Your task to perform on an android device: Clear the shopping cart on walmart. Add macbook to the cart on walmart Image 0: 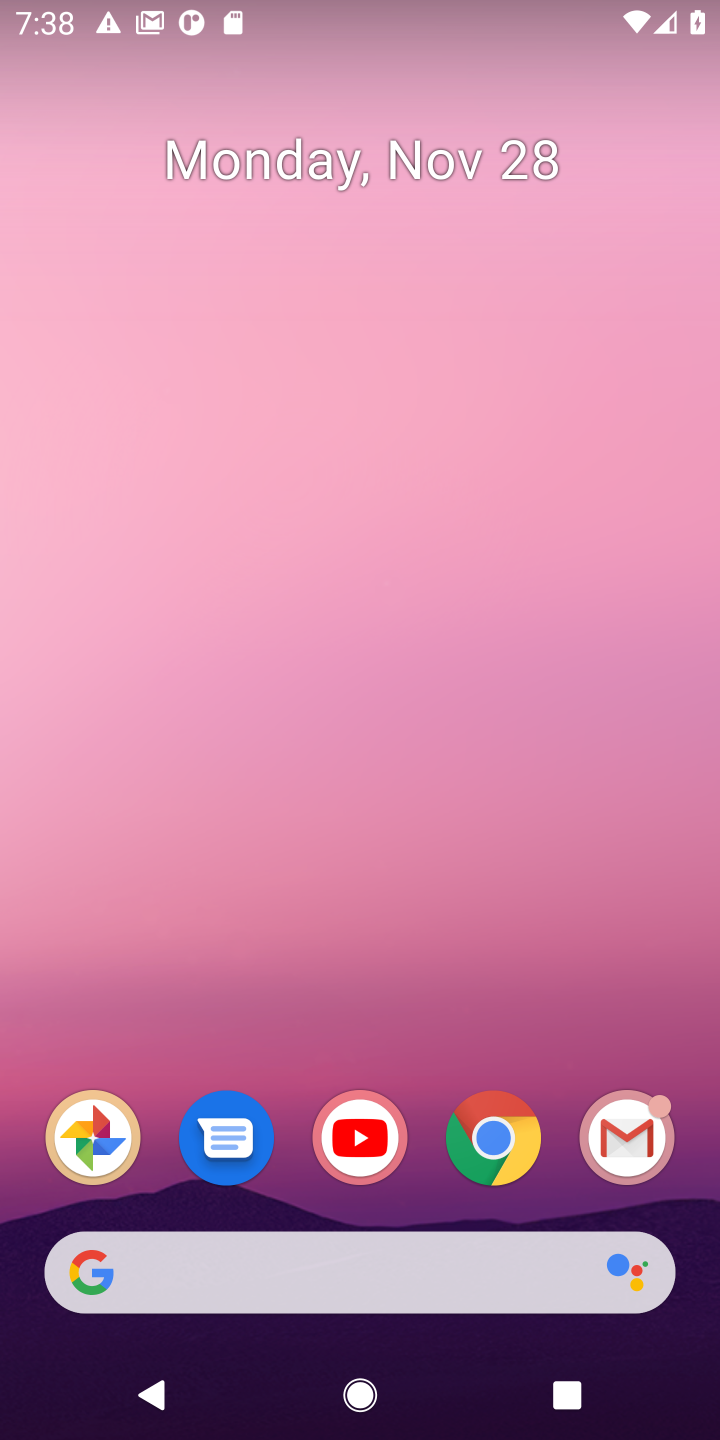
Step 0: click (484, 1155)
Your task to perform on an android device: Clear the shopping cart on walmart. Add macbook to the cart on walmart Image 1: 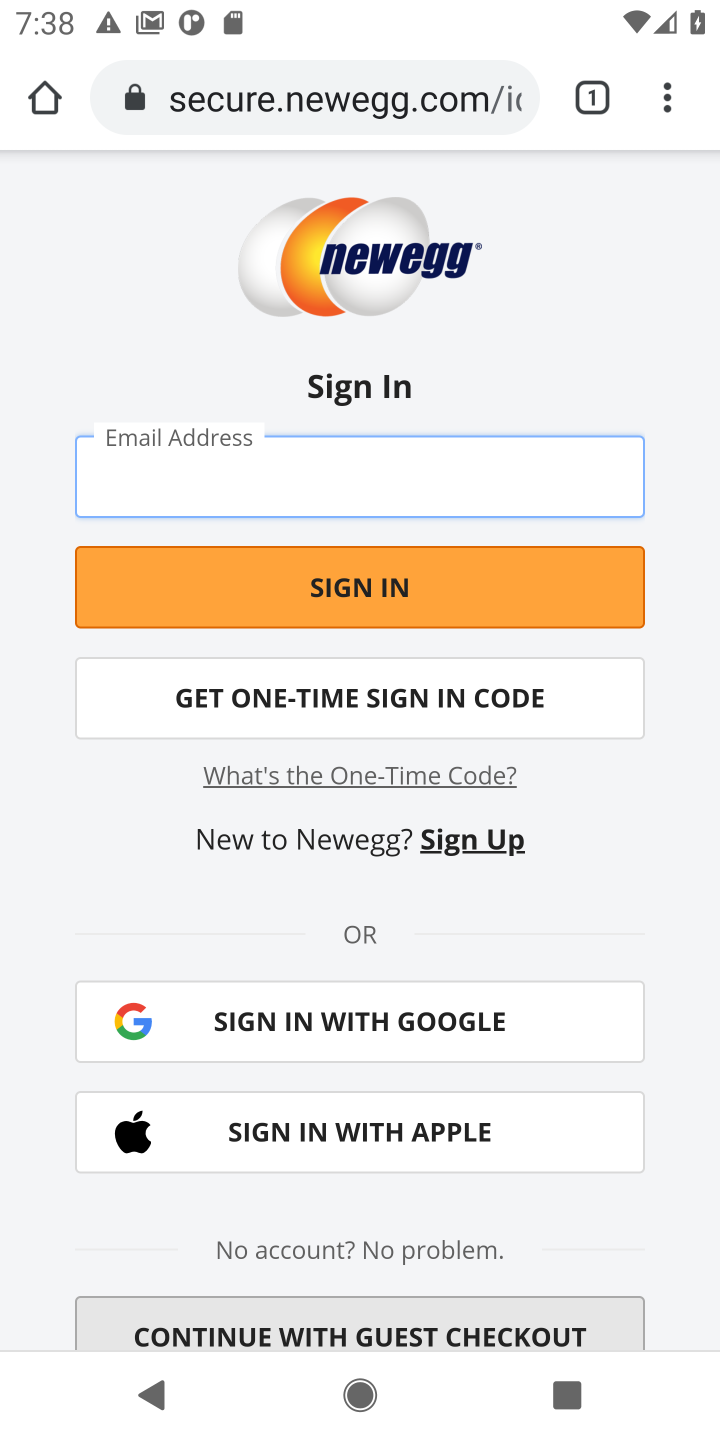
Step 1: click (270, 104)
Your task to perform on an android device: Clear the shopping cart on walmart. Add macbook to the cart on walmart Image 2: 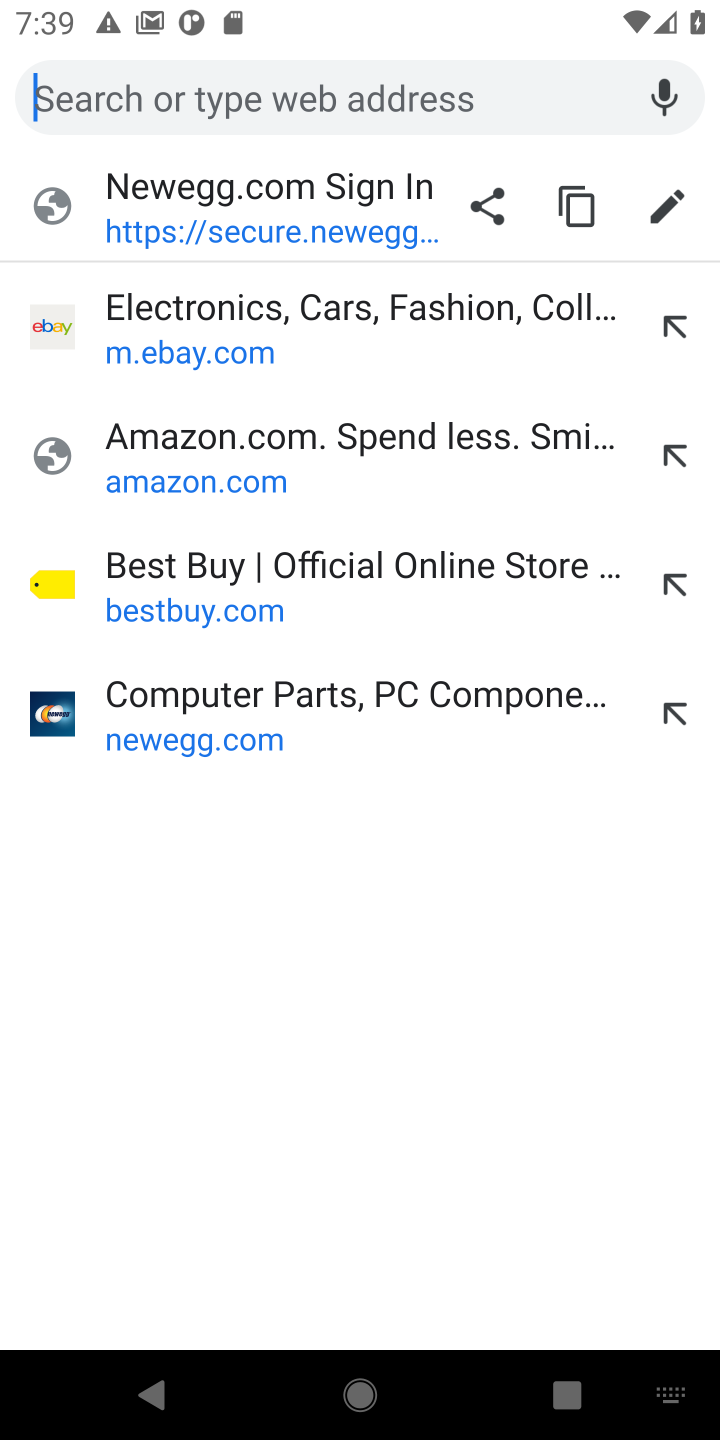
Step 2: type "walmart.com"
Your task to perform on an android device: Clear the shopping cart on walmart. Add macbook to the cart on walmart Image 3: 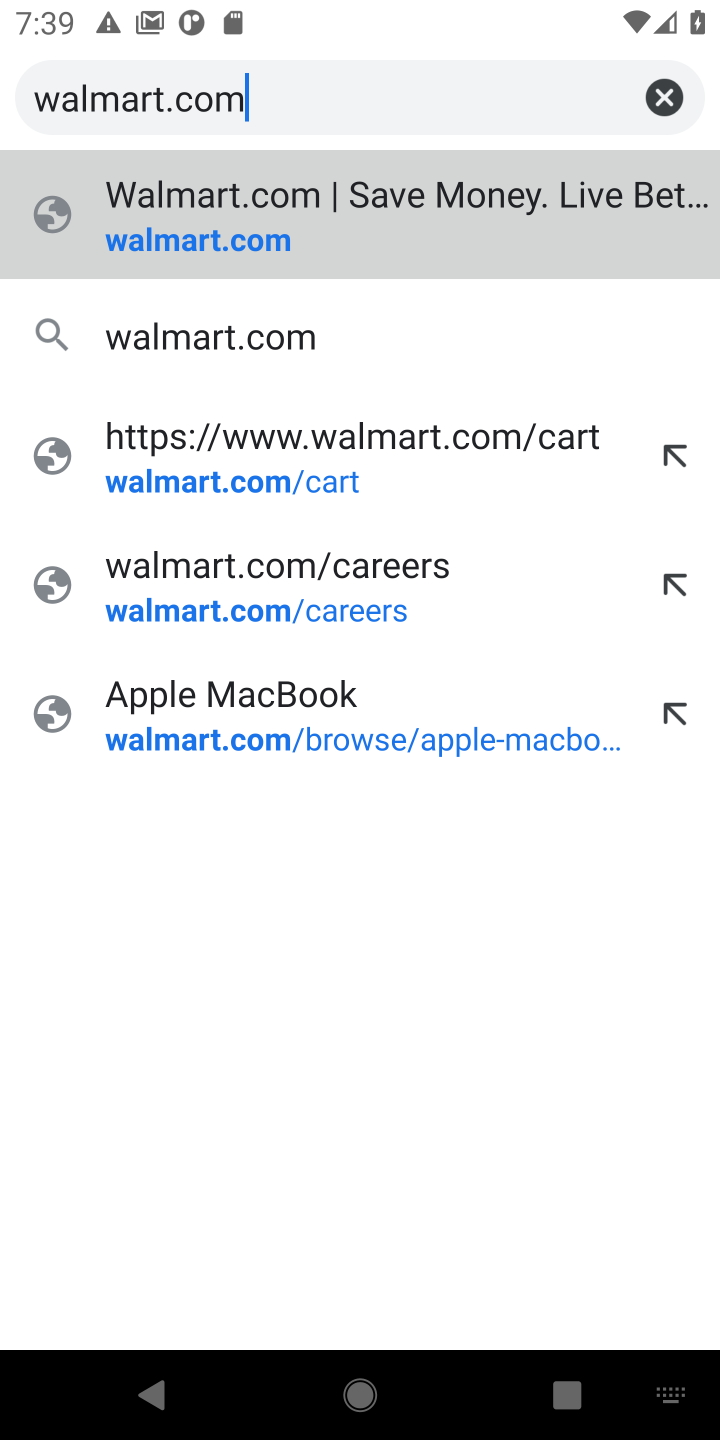
Step 3: click (161, 224)
Your task to perform on an android device: Clear the shopping cart on walmart. Add macbook to the cart on walmart Image 4: 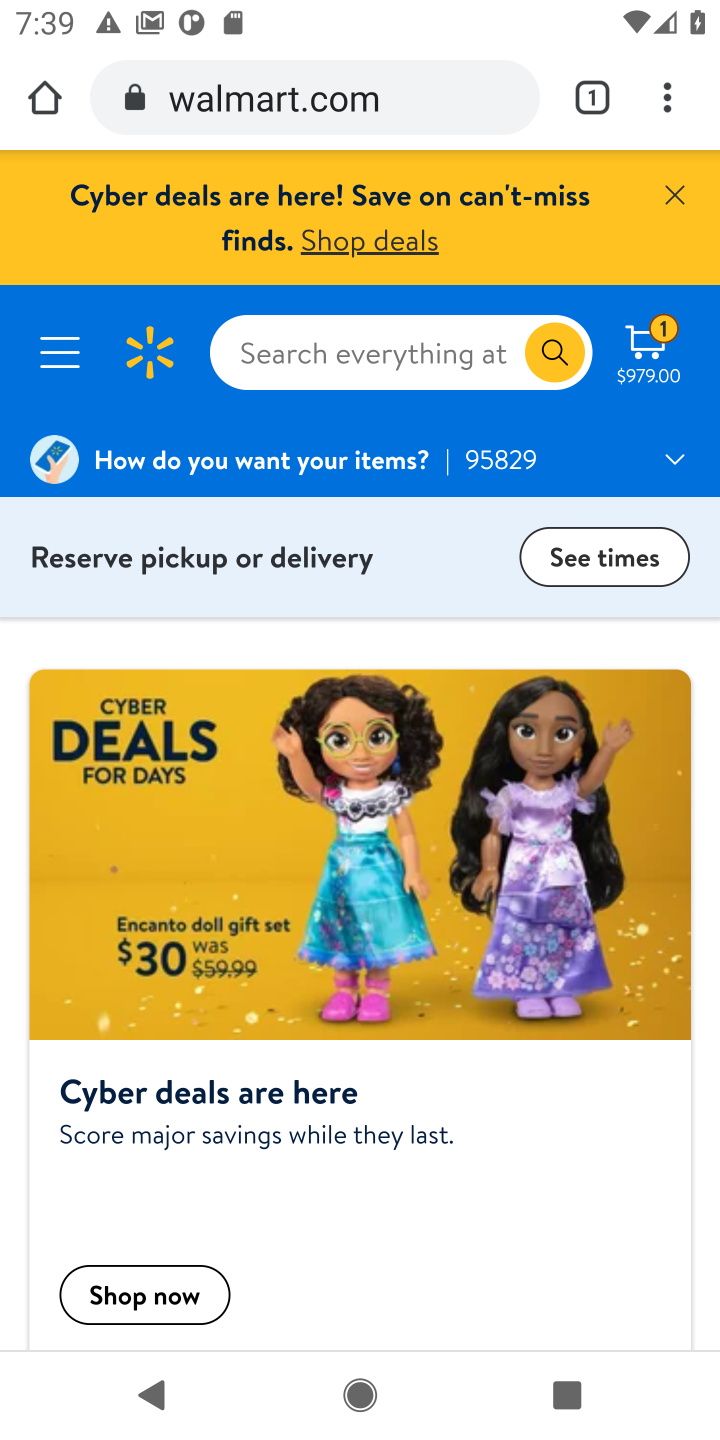
Step 4: click (668, 356)
Your task to perform on an android device: Clear the shopping cart on walmart. Add macbook to the cart on walmart Image 5: 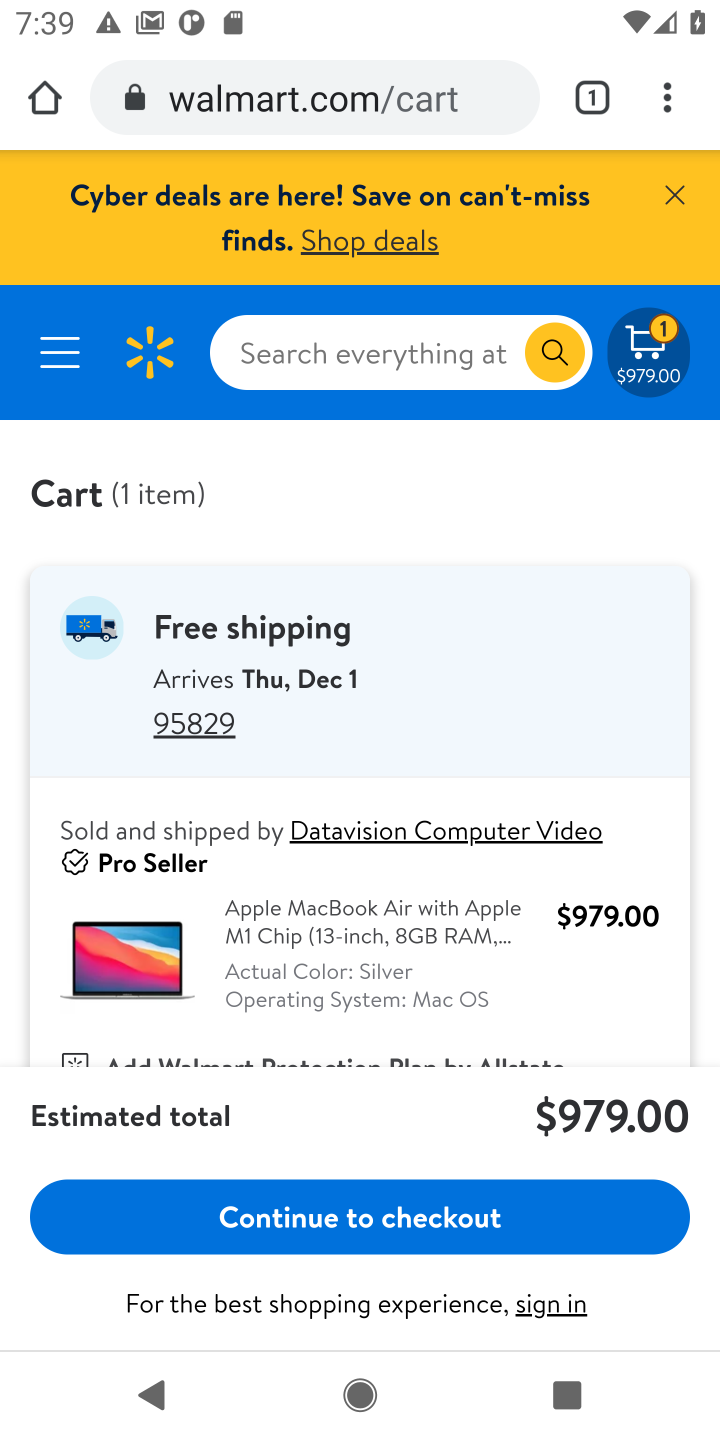
Step 5: drag from (372, 960) to (354, 502)
Your task to perform on an android device: Clear the shopping cart on walmart. Add macbook to the cart on walmart Image 6: 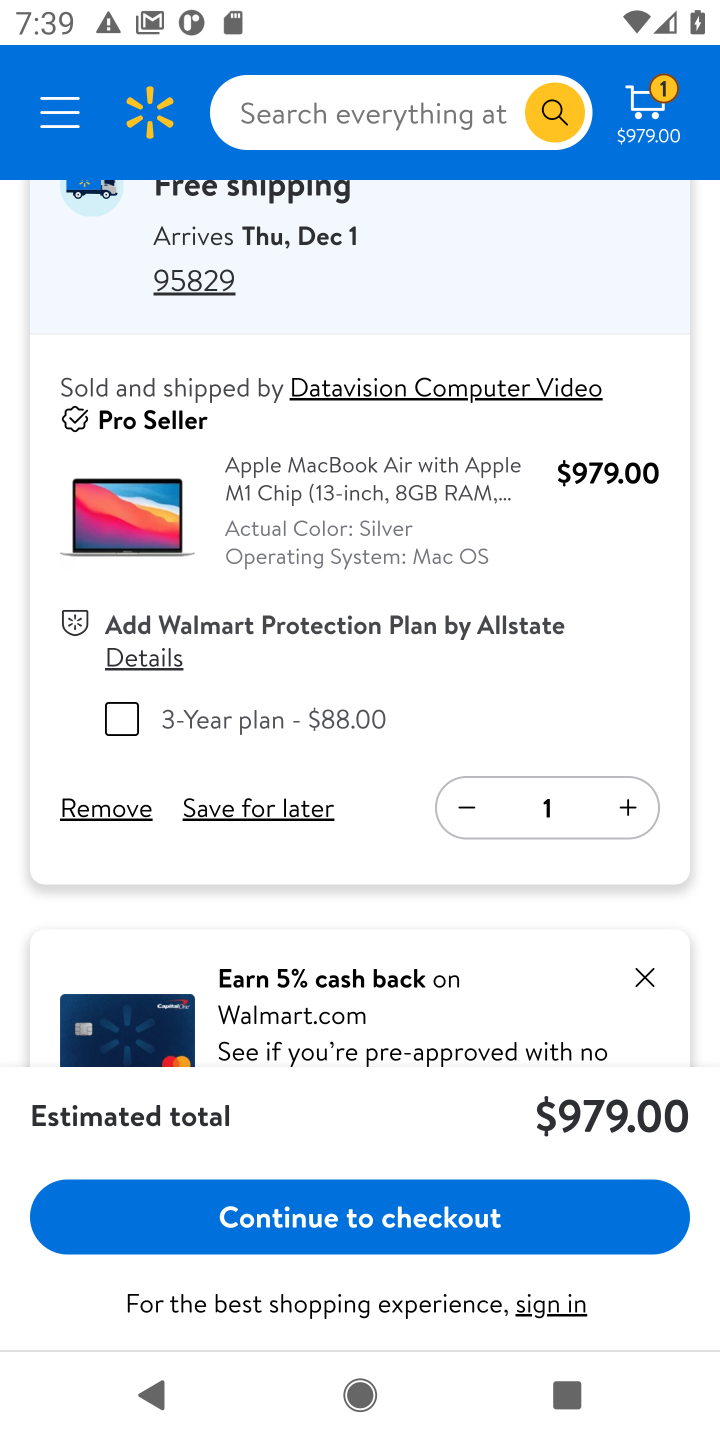
Step 6: click (113, 812)
Your task to perform on an android device: Clear the shopping cart on walmart. Add macbook to the cart on walmart Image 7: 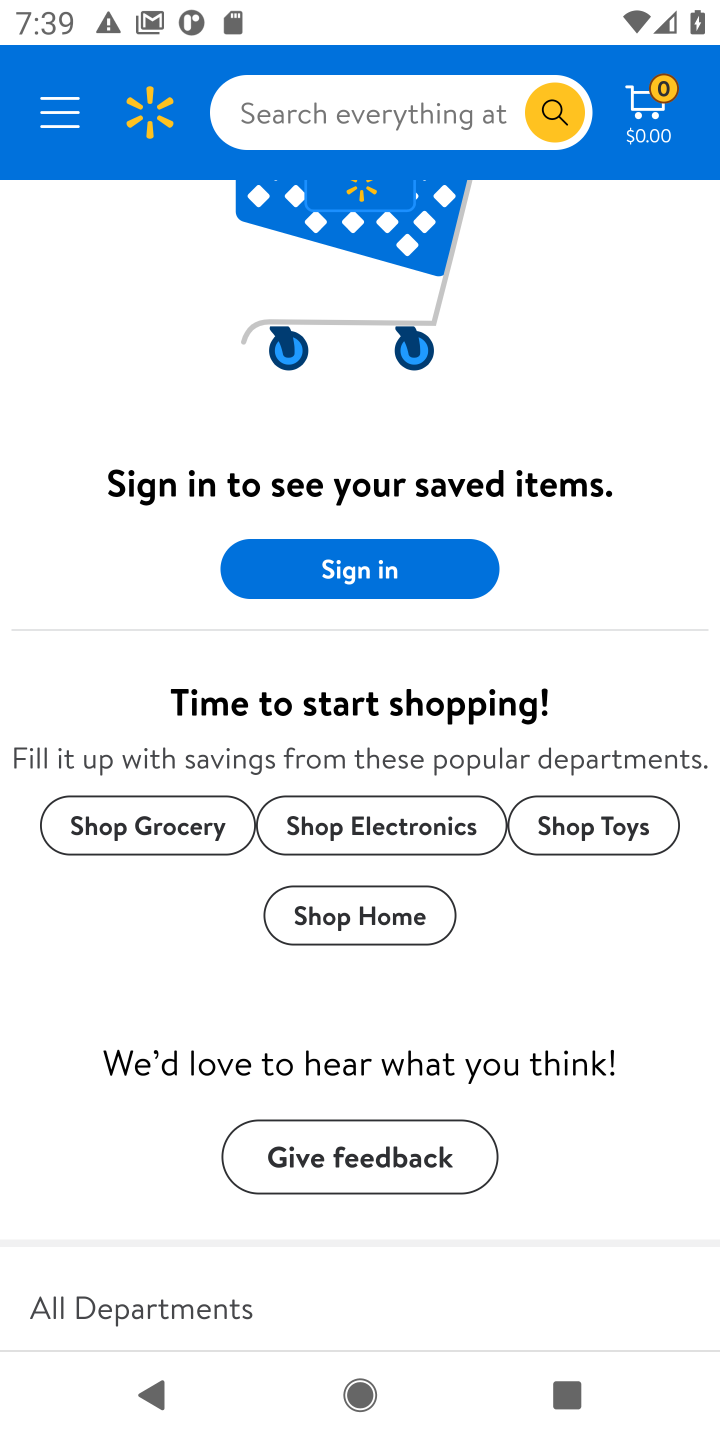
Step 7: click (289, 112)
Your task to perform on an android device: Clear the shopping cart on walmart. Add macbook to the cart on walmart Image 8: 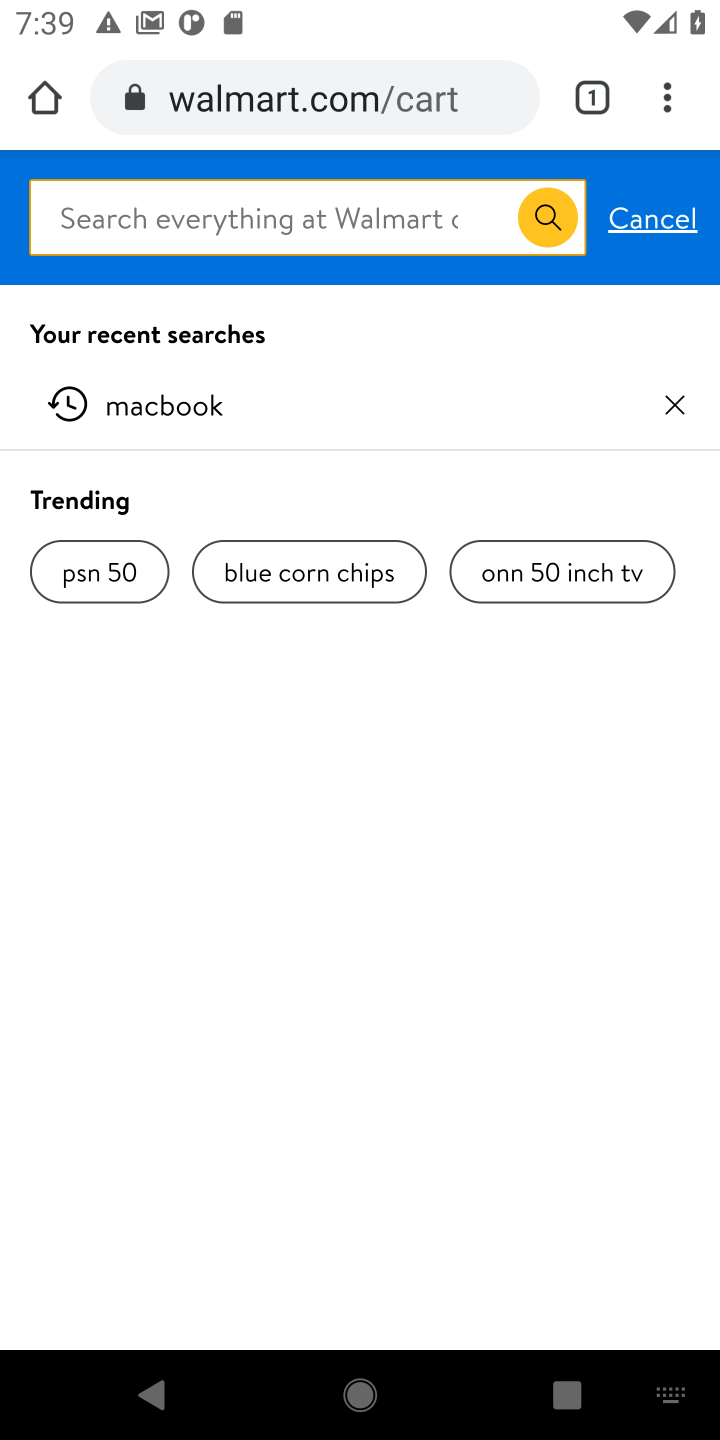
Step 8: type "macbook"
Your task to perform on an android device: Clear the shopping cart on walmart. Add macbook to the cart on walmart Image 9: 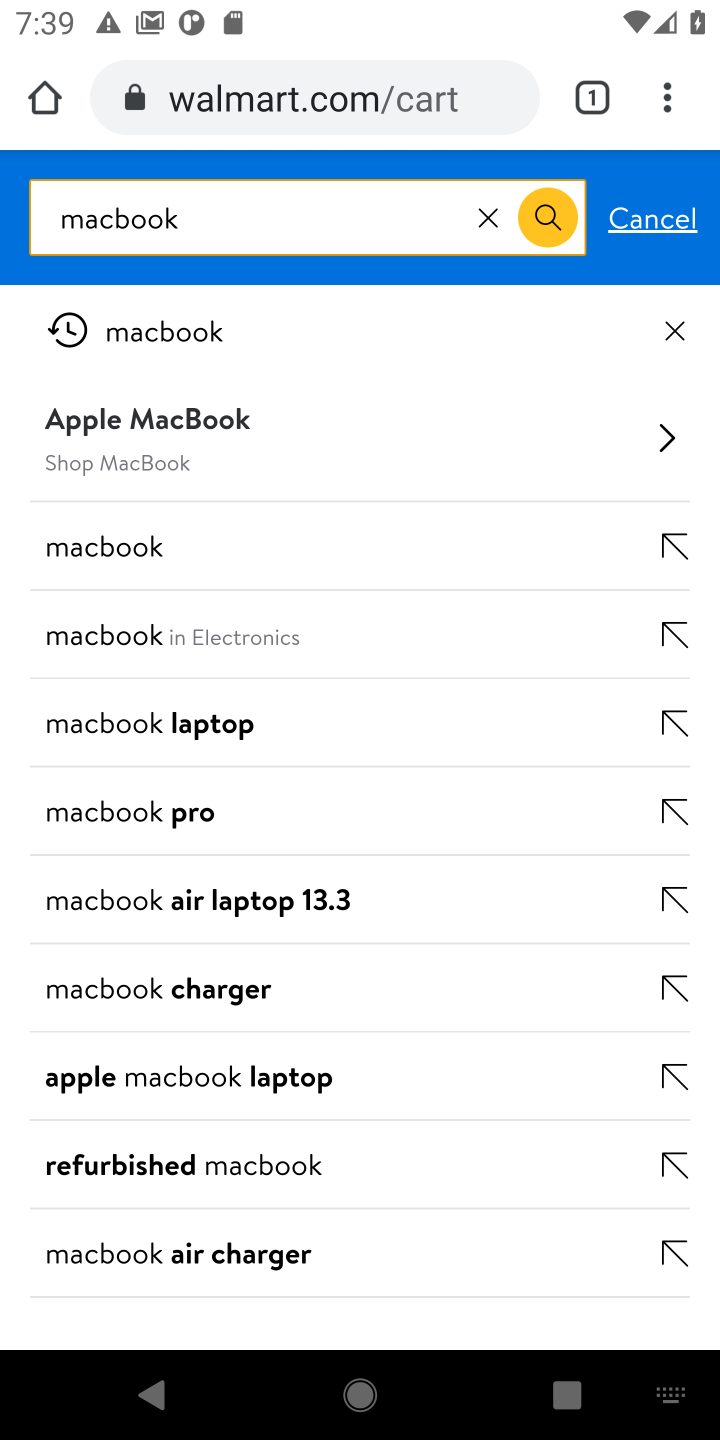
Step 9: click (170, 329)
Your task to perform on an android device: Clear the shopping cart on walmart. Add macbook to the cart on walmart Image 10: 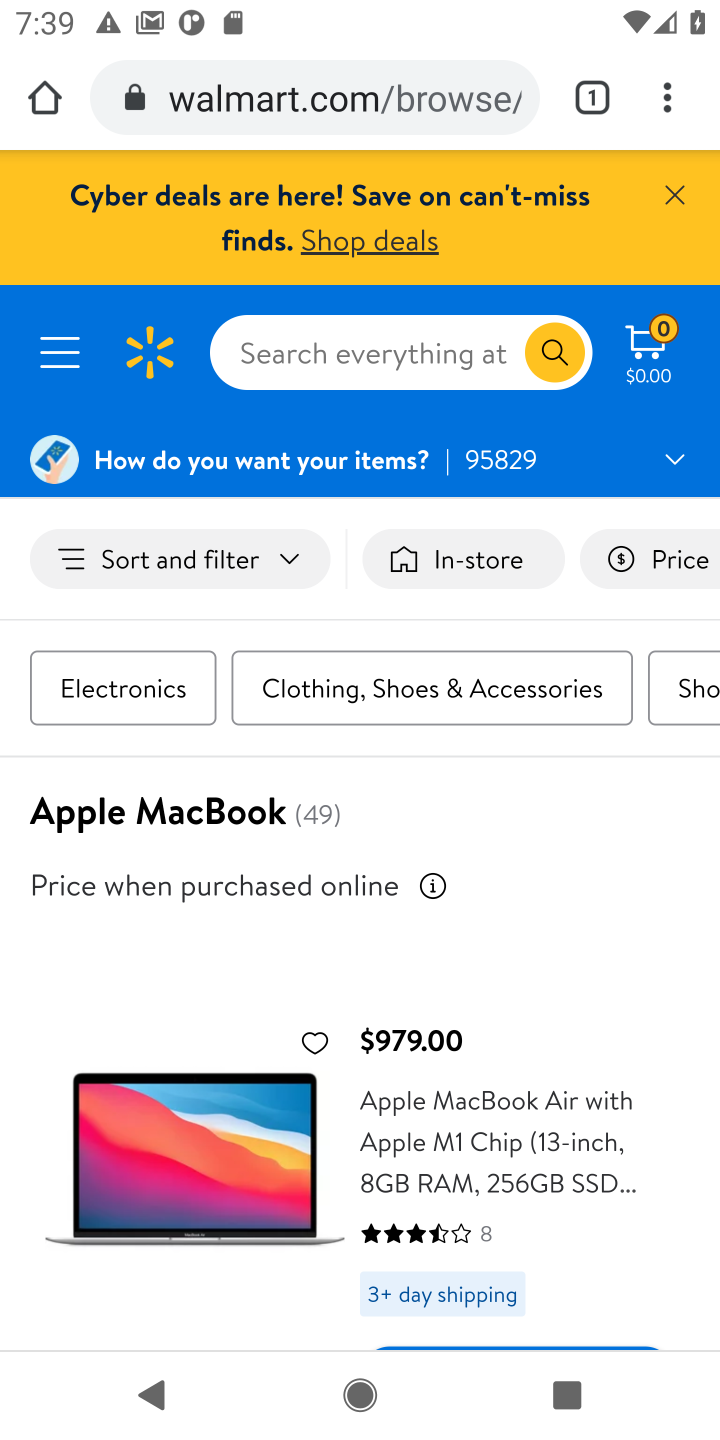
Step 10: drag from (435, 980) to (441, 657)
Your task to perform on an android device: Clear the shopping cart on walmart. Add macbook to the cart on walmart Image 11: 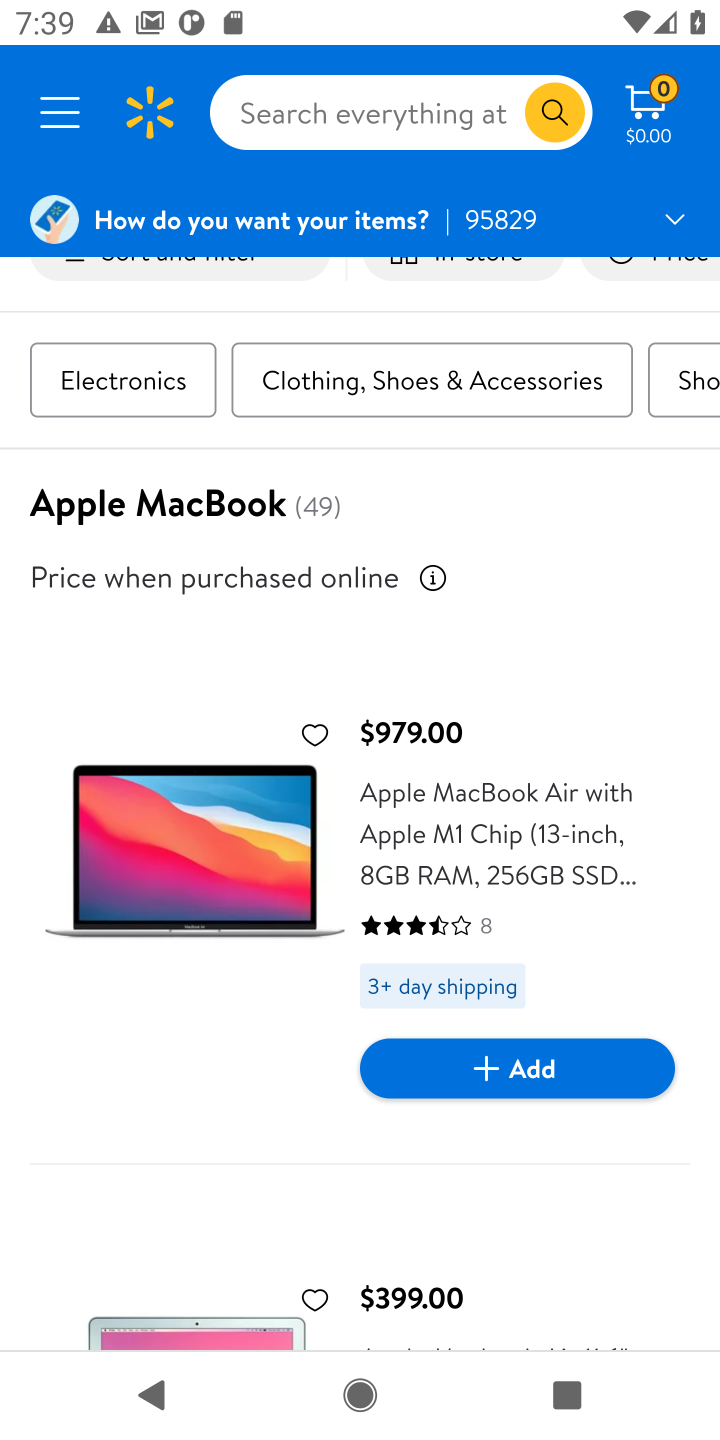
Step 11: click (490, 1071)
Your task to perform on an android device: Clear the shopping cart on walmart. Add macbook to the cart on walmart Image 12: 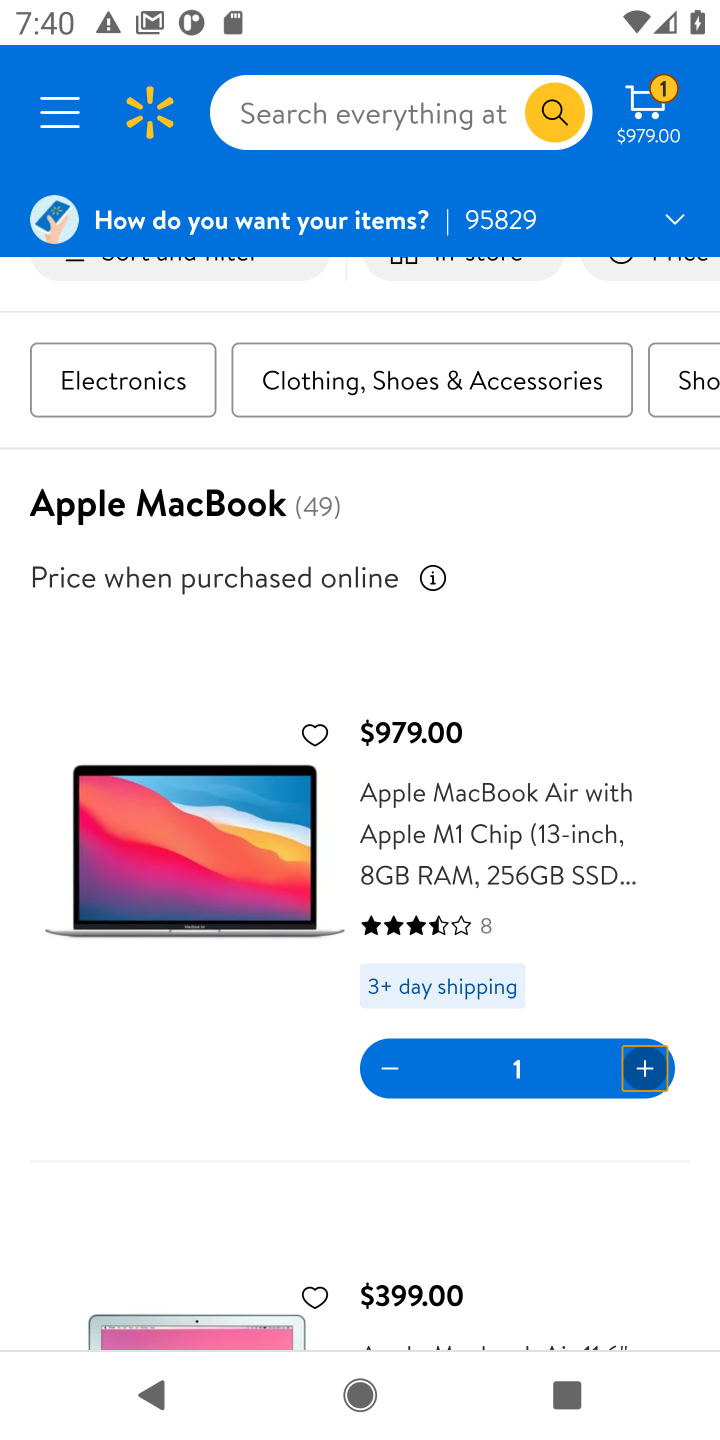
Step 12: task complete